Your task to perform on an android device: set the stopwatch Image 0: 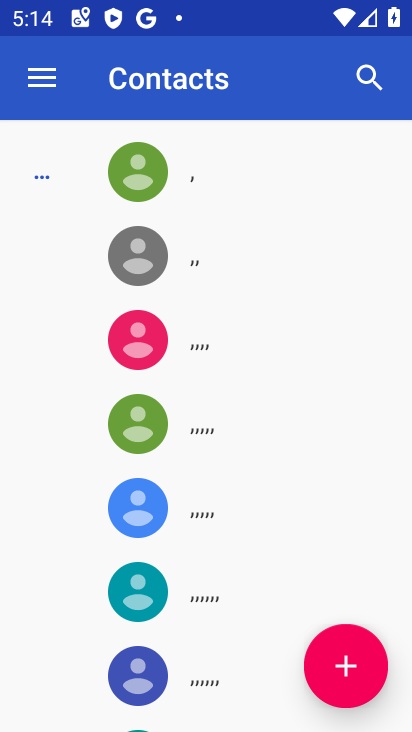
Step 0: press back button
Your task to perform on an android device: set the stopwatch Image 1: 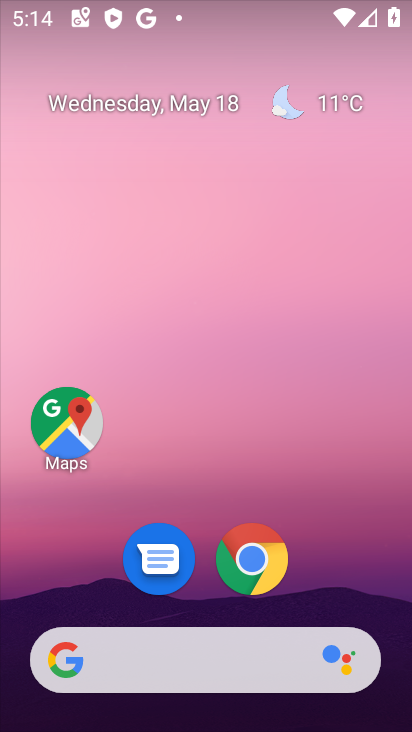
Step 1: drag from (206, 542) to (237, 70)
Your task to perform on an android device: set the stopwatch Image 2: 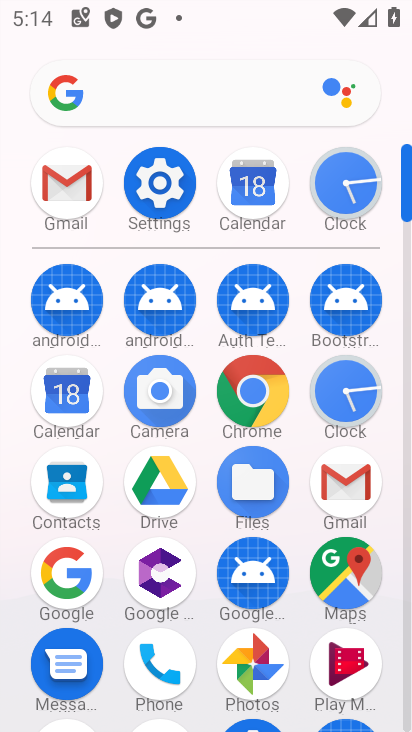
Step 2: click (318, 375)
Your task to perform on an android device: set the stopwatch Image 3: 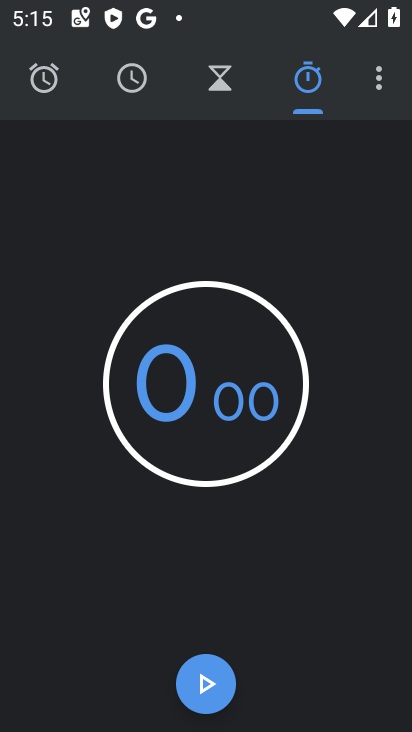
Step 3: click (223, 379)
Your task to perform on an android device: set the stopwatch Image 4: 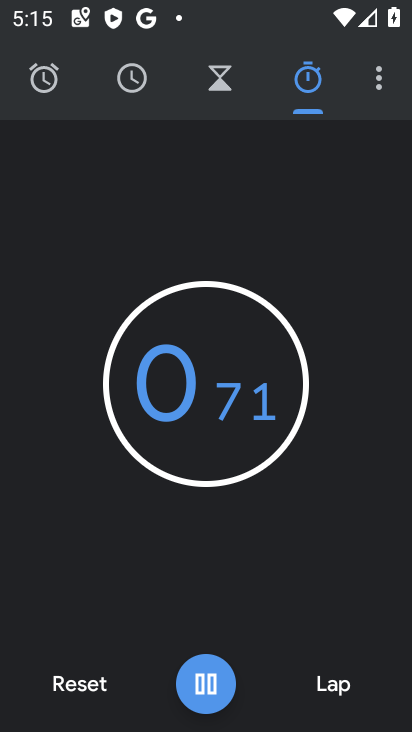
Step 4: click (223, 379)
Your task to perform on an android device: set the stopwatch Image 5: 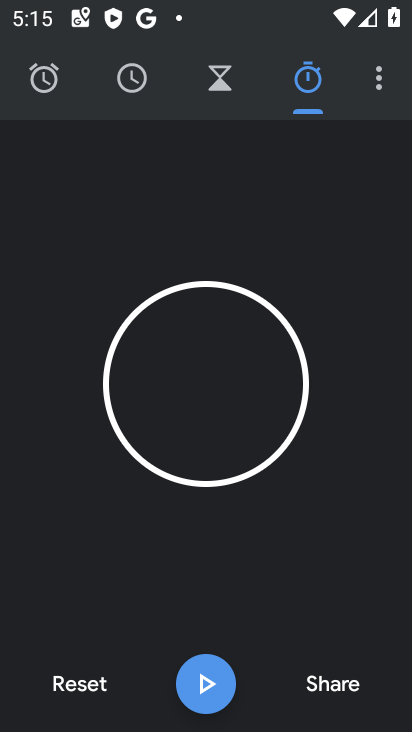
Step 5: task complete